Your task to perform on an android device: See recent photos Image 0: 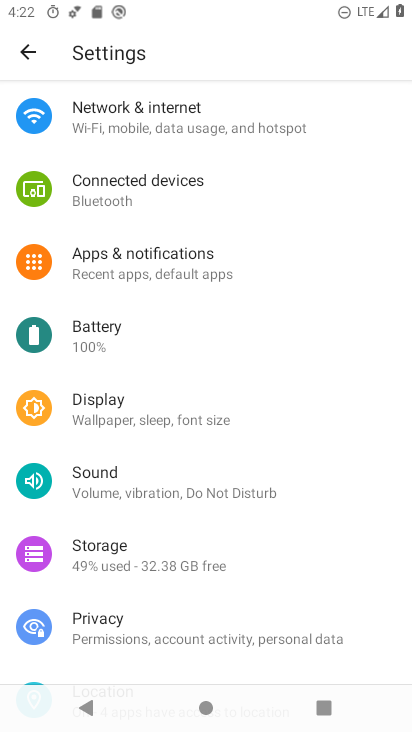
Step 0: press home button
Your task to perform on an android device: See recent photos Image 1: 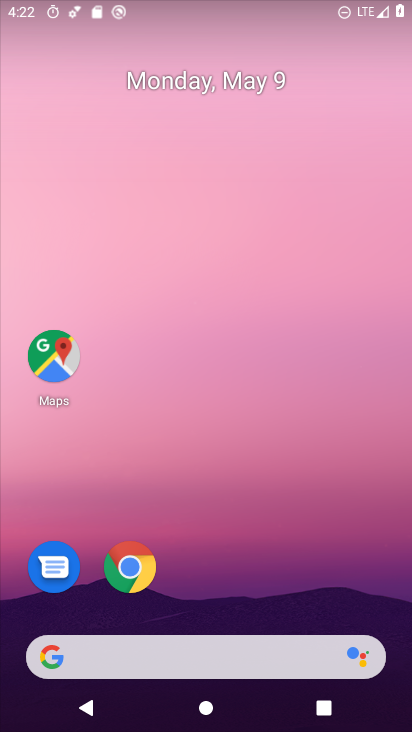
Step 1: drag from (204, 557) to (224, 147)
Your task to perform on an android device: See recent photos Image 2: 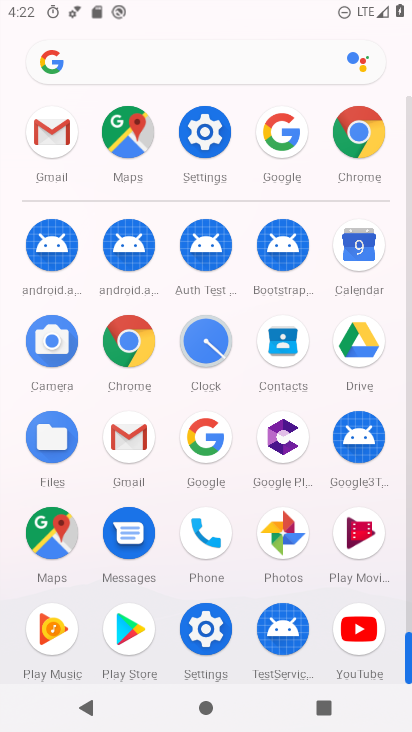
Step 2: click (286, 536)
Your task to perform on an android device: See recent photos Image 3: 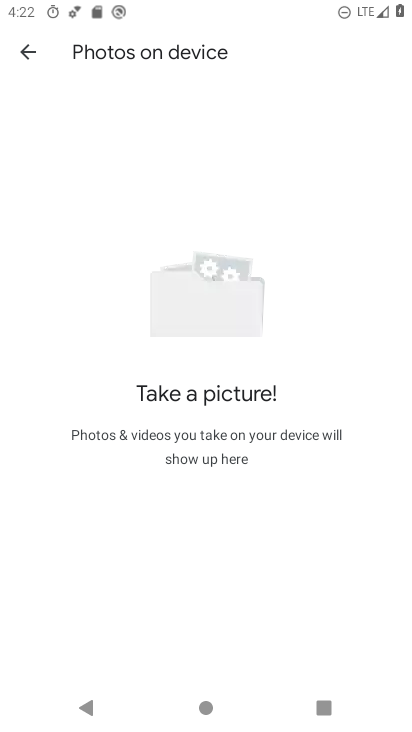
Step 3: click (20, 53)
Your task to perform on an android device: See recent photos Image 4: 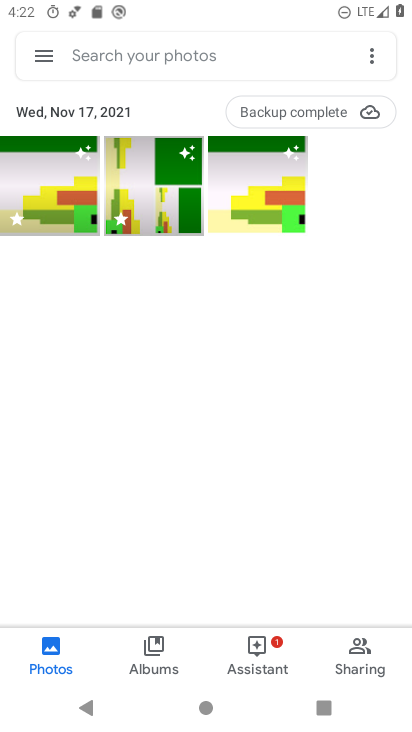
Step 4: click (146, 649)
Your task to perform on an android device: See recent photos Image 5: 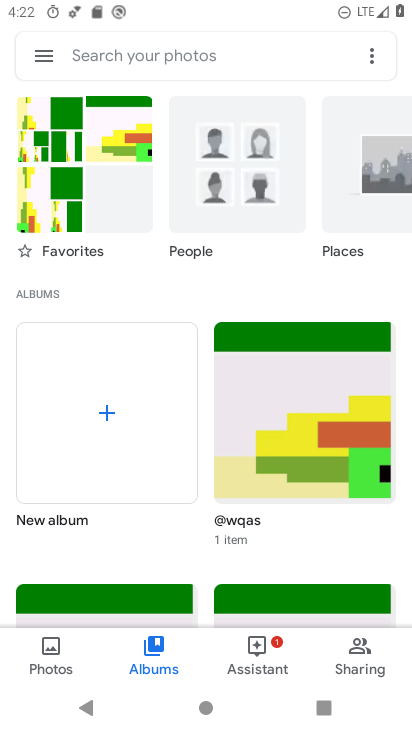
Step 5: click (181, 46)
Your task to perform on an android device: See recent photos Image 6: 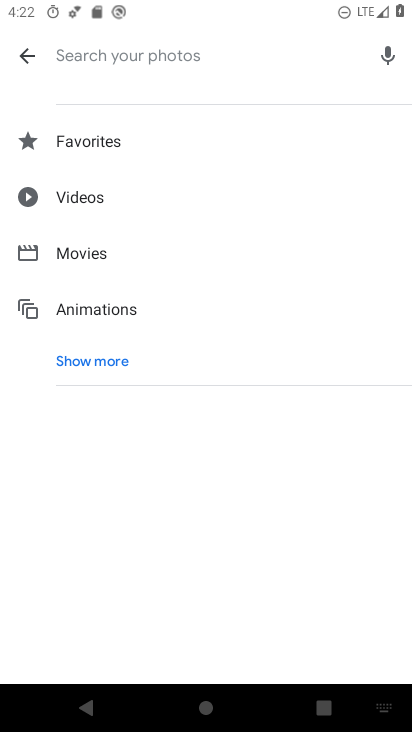
Step 6: type "recent photos"
Your task to perform on an android device: See recent photos Image 7: 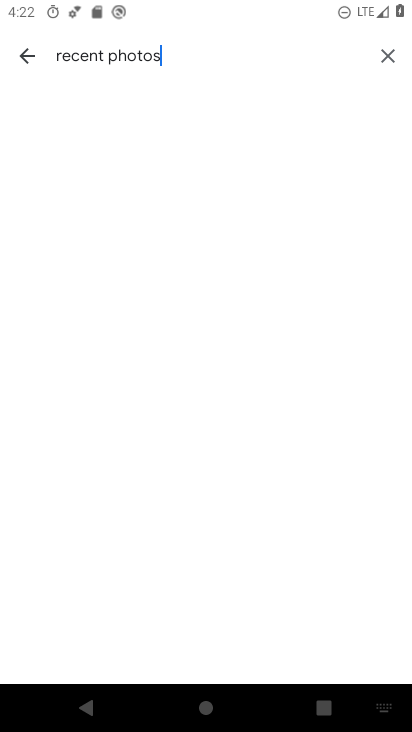
Step 7: task complete